Your task to perform on an android device: Go to battery settings Image 0: 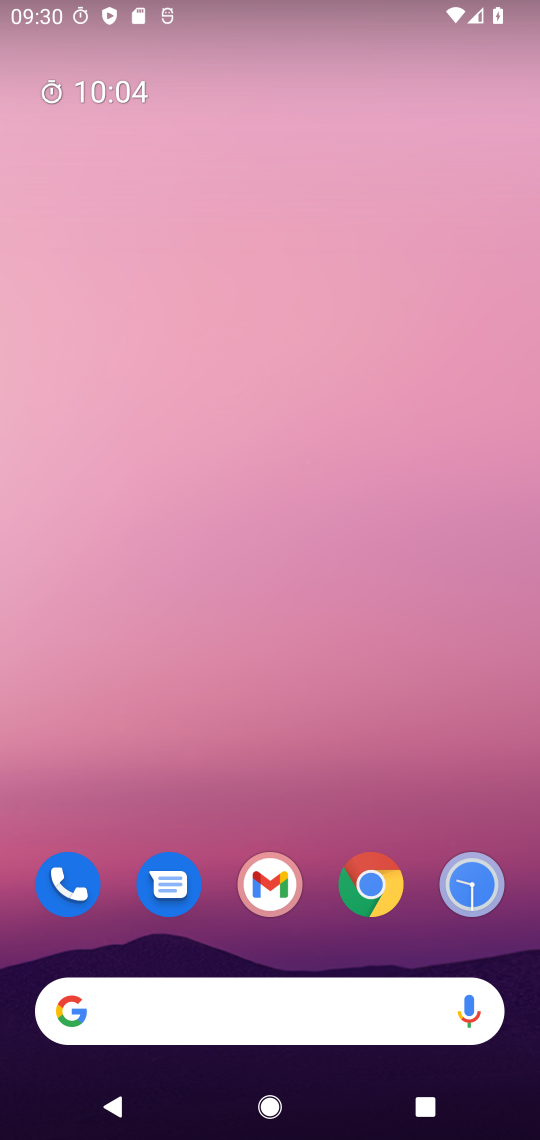
Step 0: drag from (240, 828) to (275, 166)
Your task to perform on an android device: Go to battery settings Image 1: 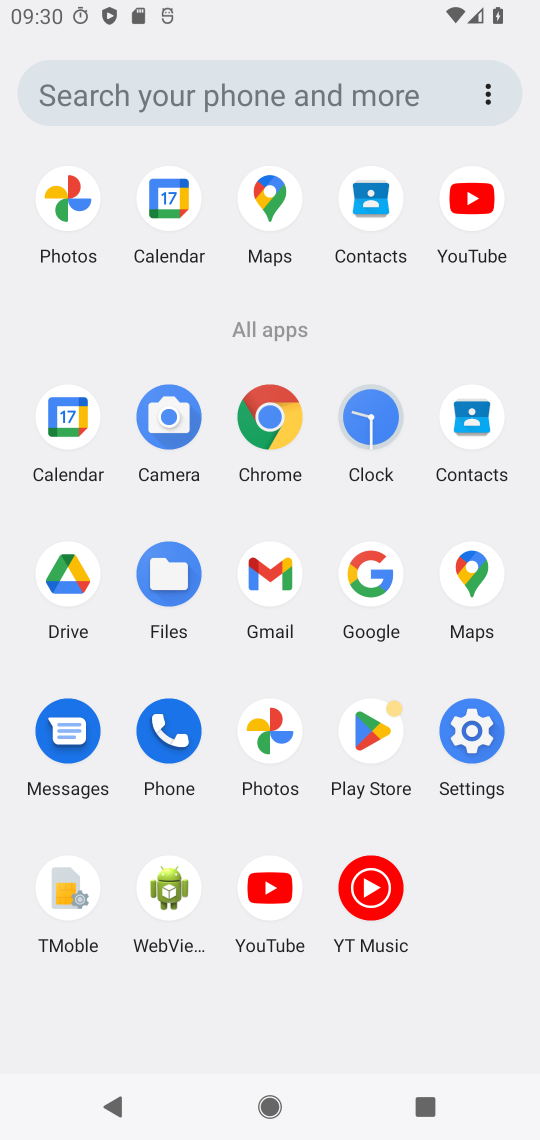
Step 1: click (451, 741)
Your task to perform on an android device: Go to battery settings Image 2: 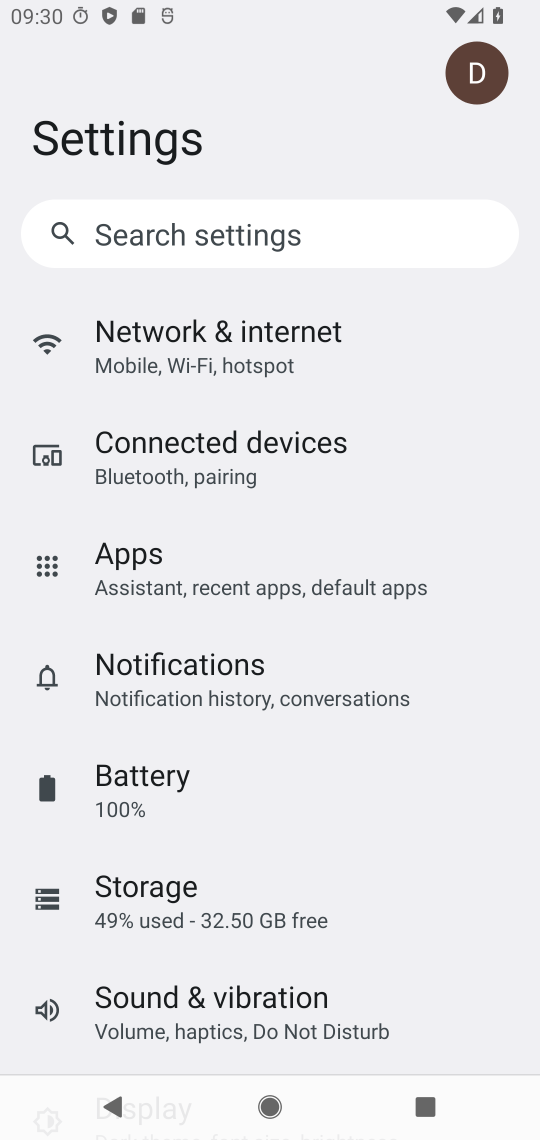
Step 2: click (202, 796)
Your task to perform on an android device: Go to battery settings Image 3: 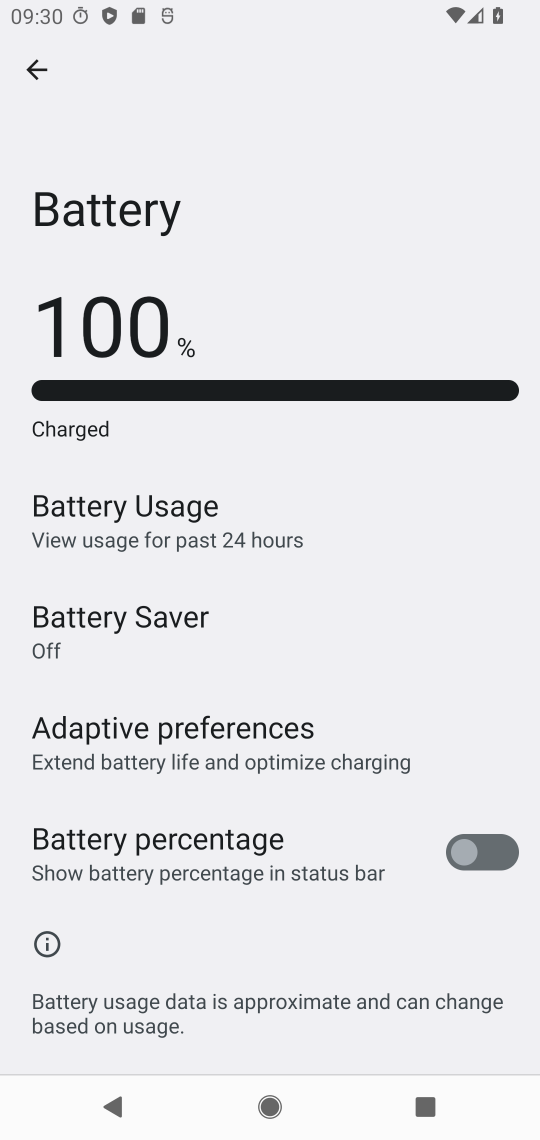
Step 3: task complete